Your task to perform on an android device: What's on my calendar today? Image 0: 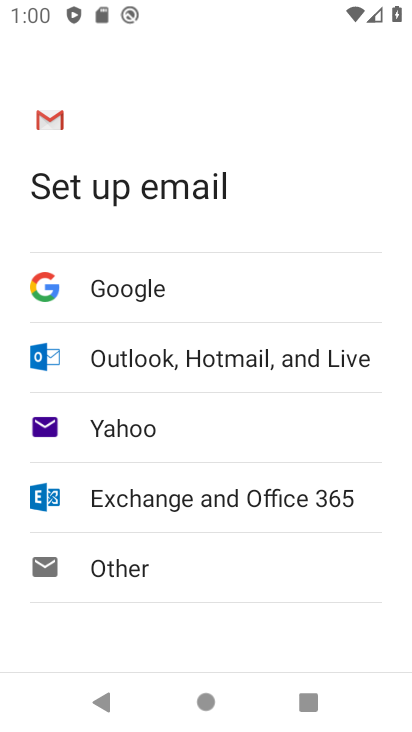
Step 0: press back button
Your task to perform on an android device: What's on my calendar today? Image 1: 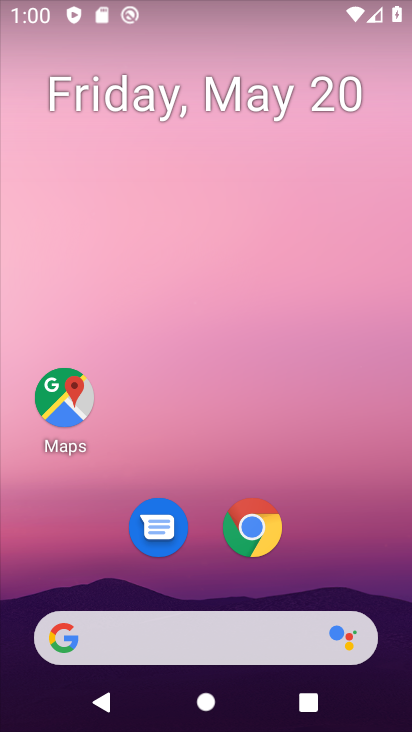
Step 1: drag from (341, 588) to (238, 0)
Your task to perform on an android device: What's on my calendar today? Image 2: 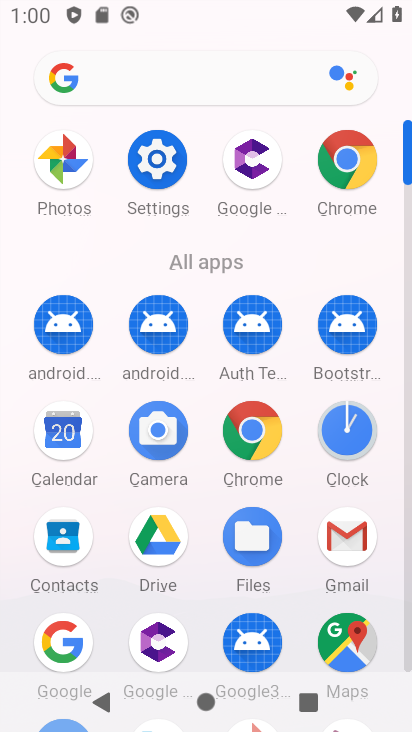
Step 2: click (55, 440)
Your task to perform on an android device: What's on my calendar today? Image 3: 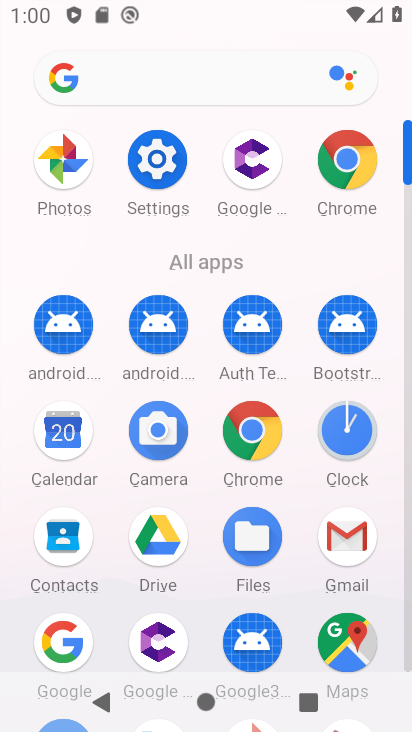
Step 3: click (56, 439)
Your task to perform on an android device: What's on my calendar today? Image 4: 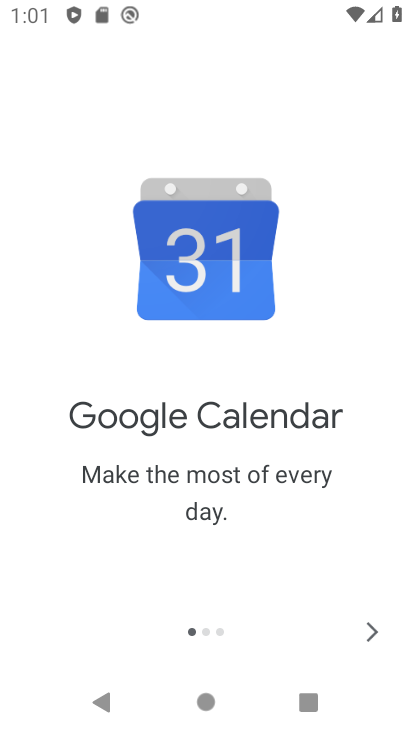
Step 4: click (364, 629)
Your task to perform on an android device: What's on my calendar today? Image 5: 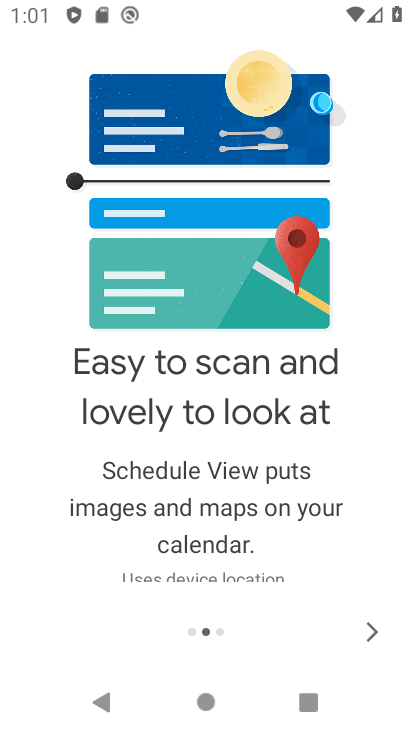
Step 5: click (363, 634)
Your task to perform on an android device: What's on my calendar today? Image 6: 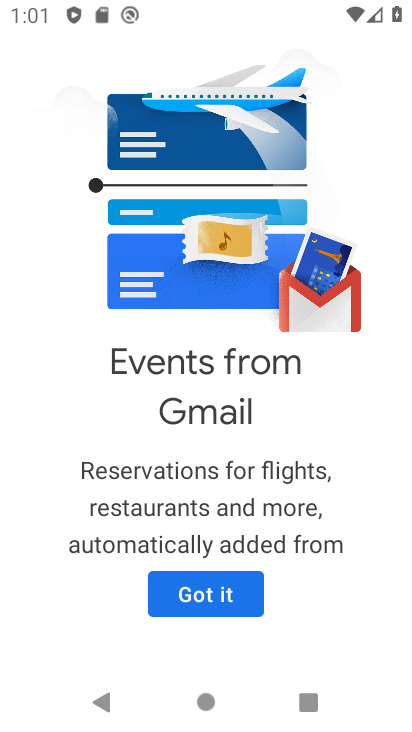
Step 6: click (186, 590)
Your task to perform on an android device: What's on my calendar today? Image 7: 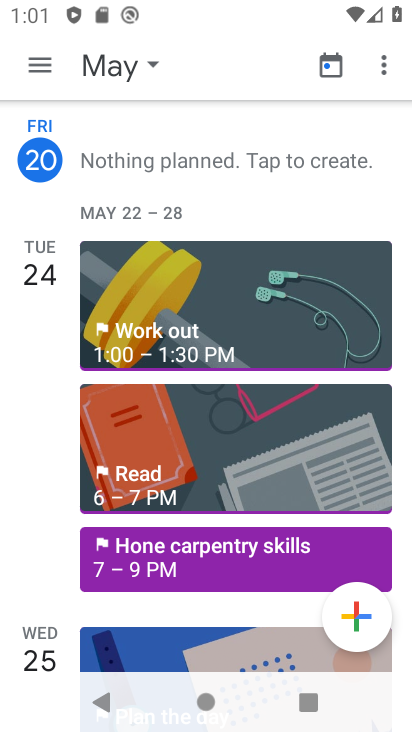
Step 7: click (119, 170)
Your task to perform on an android device: What's on my calendar today? Image 8: 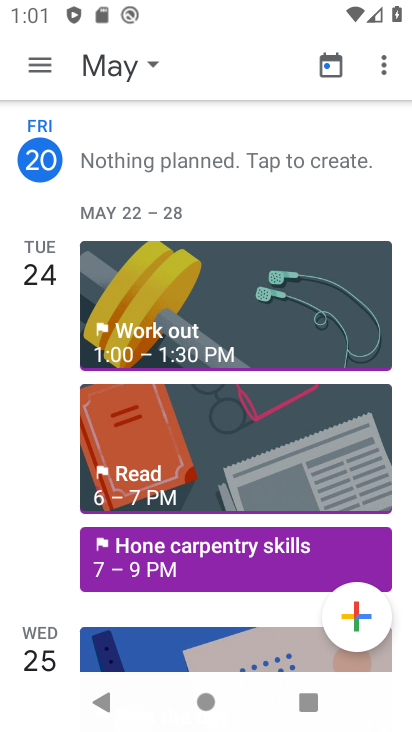
Step 8: task complete